Your task to perform on an android device: turn on notifications settings in the gmail app Image 0: 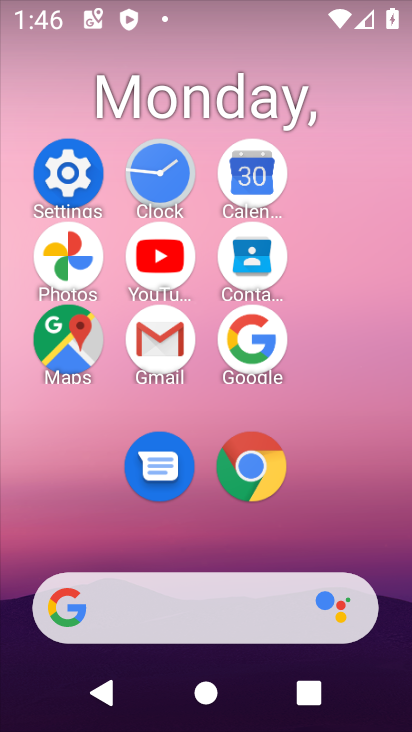
Step 0: click (164, 359)
Your task to perform on an android device: turn on notifications settings in the gmail app Image 1: 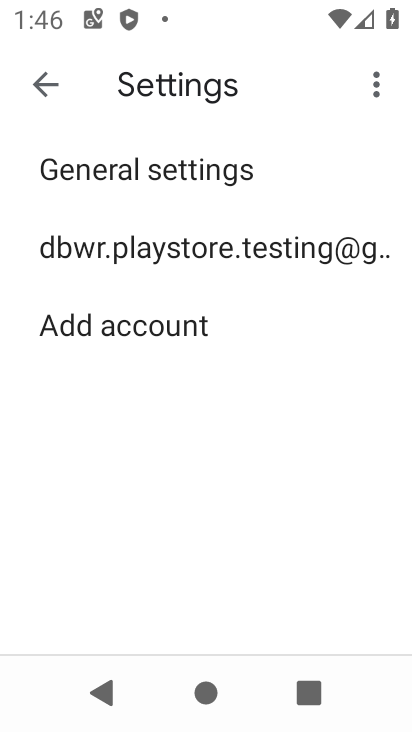
Step 1: click (30, 86)
Your task to perform on an android device: turn on notifications settings in the gmail app Image 2: 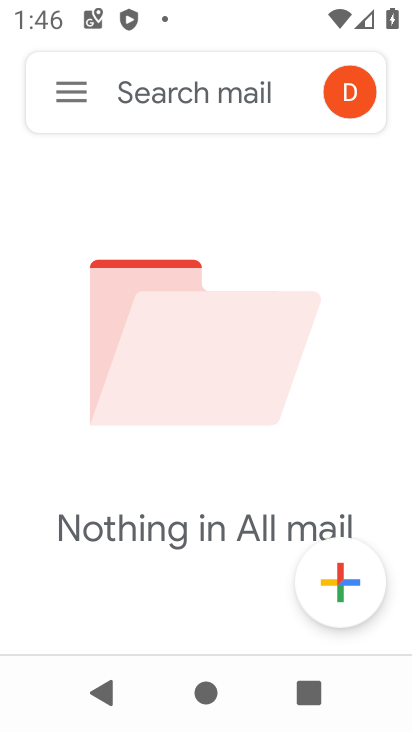
Step 2: click (55, 104)
Your task to perform on an android device: turn on notifications settings in the gmail app Image 3: 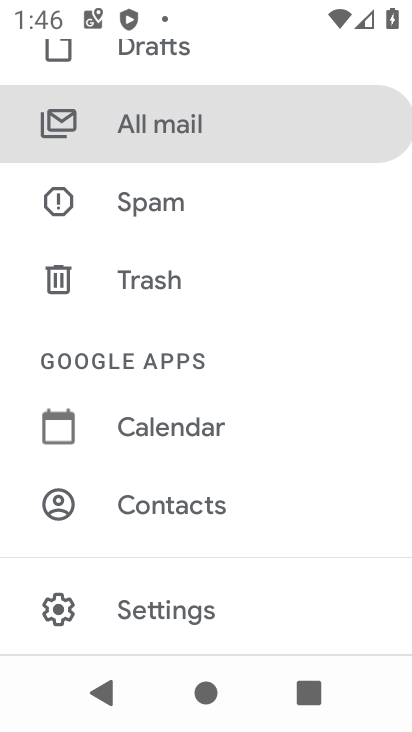
Step 3: click (173, 596)
Your task to perform on an android device: turn on notifications settings in the gmail app Image 4: 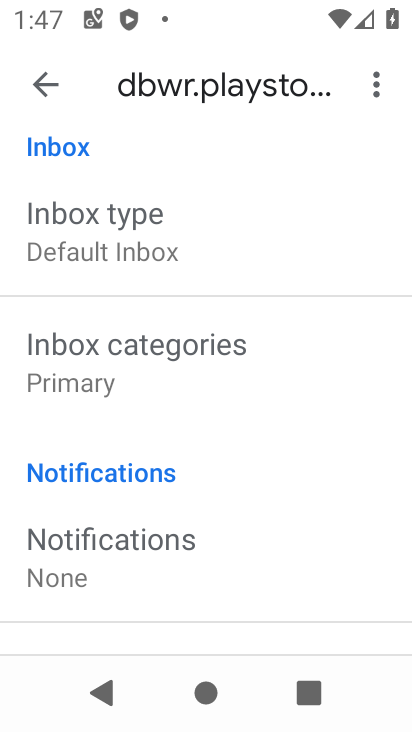
Step 4: click (161, 564)
Your task to perform on an android device: turn on notifications settings in the gmail app Image 5: 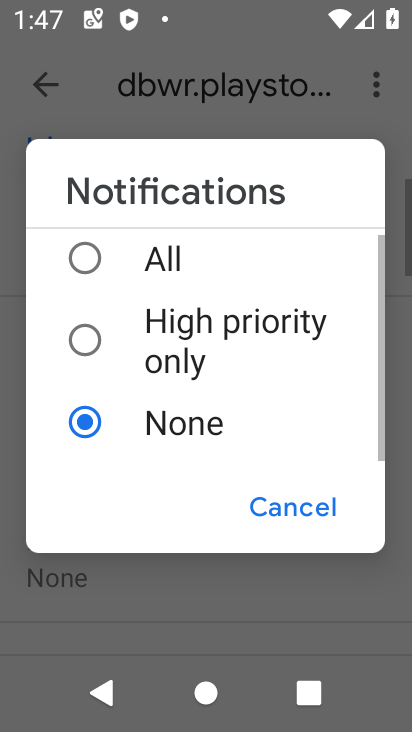
Step 5: click (167, 264)
Your task to perform on an android device: turn on notifications settings in the gmail app Image 6: 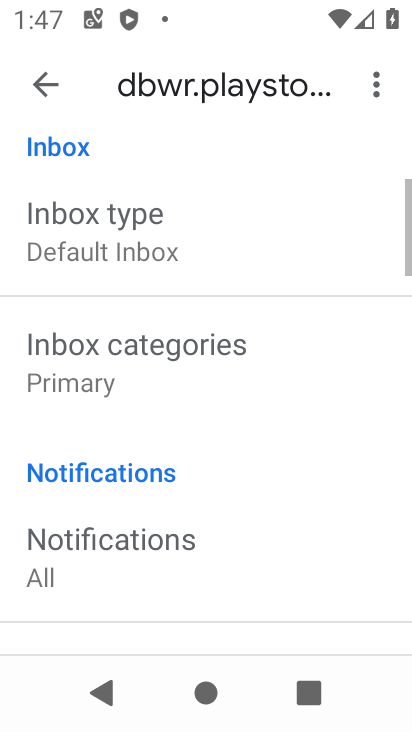
Step 6: task complete